Your task to perform on an android device: see tabs open on other devices in the chrome app Image 0: 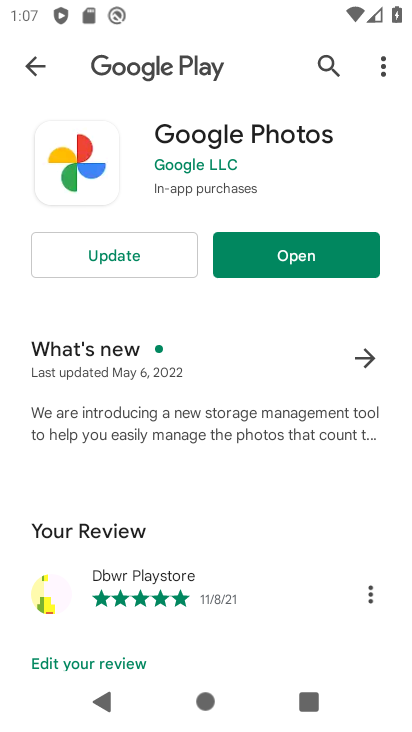
Step 0: press home button
Your task to perform on an android device: see tabs open on other devices in the chrome app Image 1: 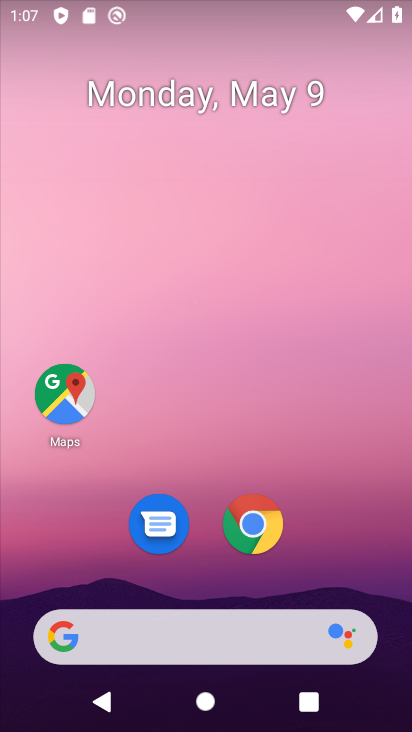
Step 1: click (248, 527)
Your task to perform on an android device: see tabs open on other devices in the chrome app Image 2: 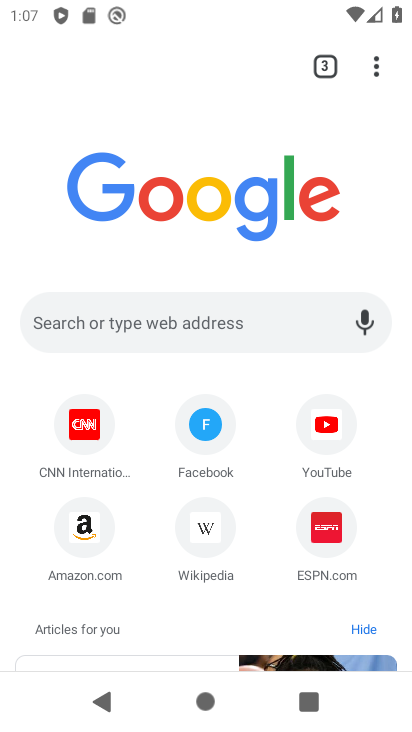
Step 2: click (366, 64)
Your task to perform on an android device: see tabs open on other devices in the chrome app Image 3: 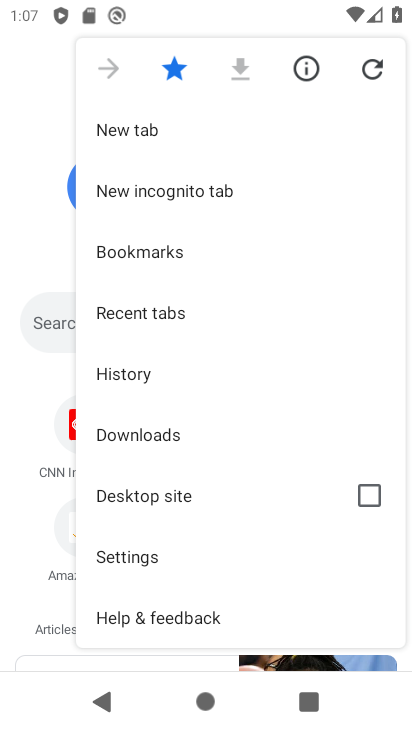
Step 3: click (156, 306)
Your task to perform on an android device: see tabs open on other devices in the chrome app Image 4: 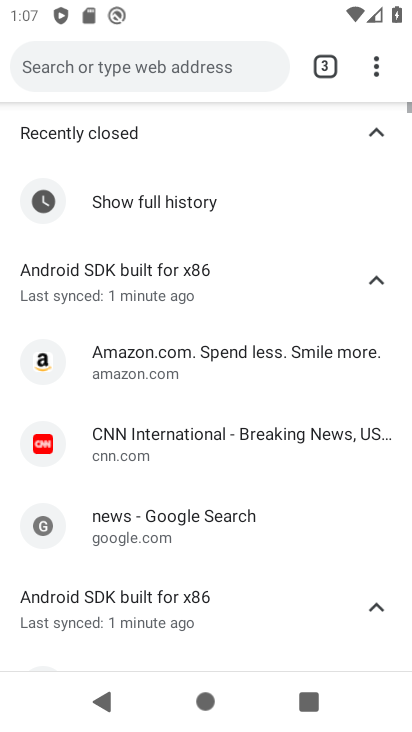
Step 4: task complete